Your task to perform on an android device: Go to battery settings Image 0: 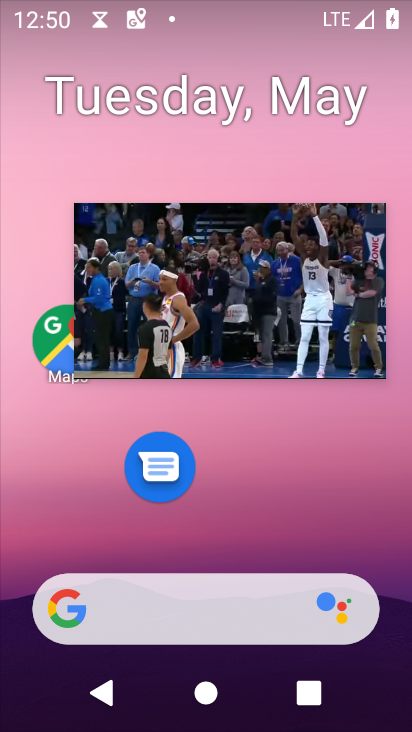
Step 0: drag from (245, 519) to (275, 55)
Your task to perform on an android device: Go to battery settings Image 1: 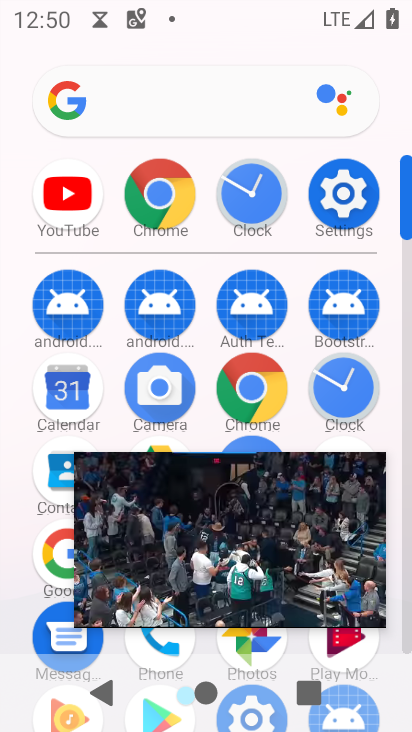
Step 1: click (340, 183)
Your task to perform on an android device: Go to battery settings Image 2: 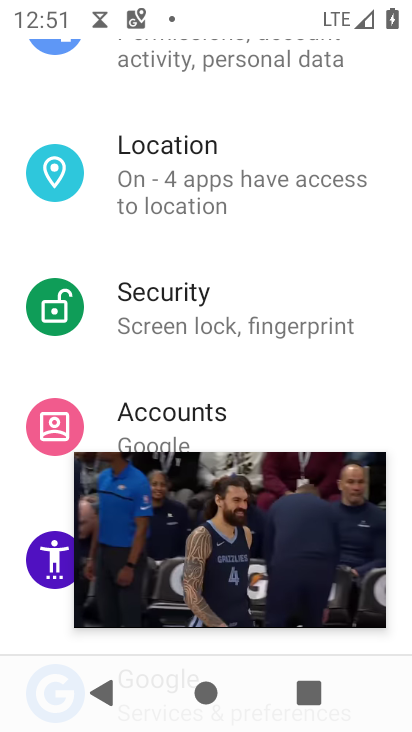
Step 2: drag from (329, 228) to (321, 366)
Your task to perform on an android device: Go to battery settings Image 3: 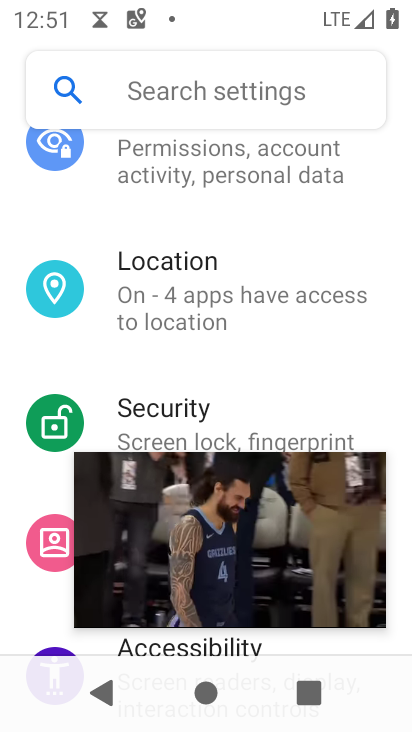
Step 3: drag from (289, 195) to (286, 398)
Your task to perform on an android device: Go to battery settings Image 4: 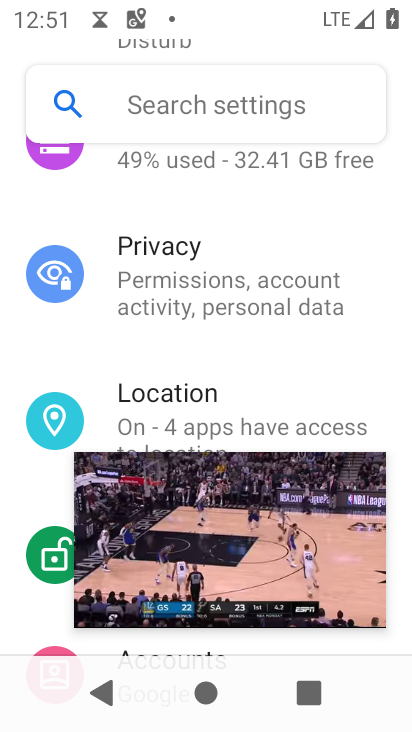
Step 4: drag from (261, 248) to (271, 398)
Your task to perform on an android device: Go to battery settings Image 5: 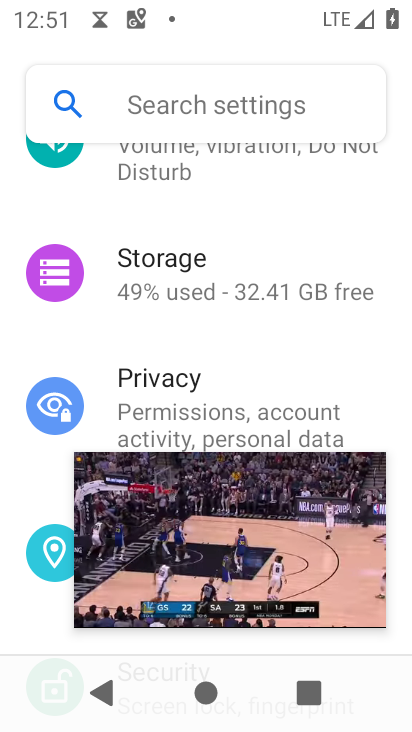
Step 5: drag from (300, 188) to (289, 427)
Your task to perform on an android device: Go to battery settings Image 6: 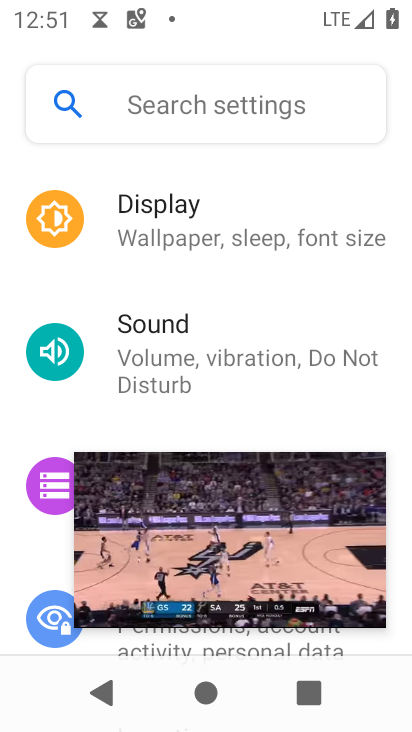
Step 6: drag from (282, 283) to (278, 501)
Your task to perform on an android device: Go to battery settings Image 7: 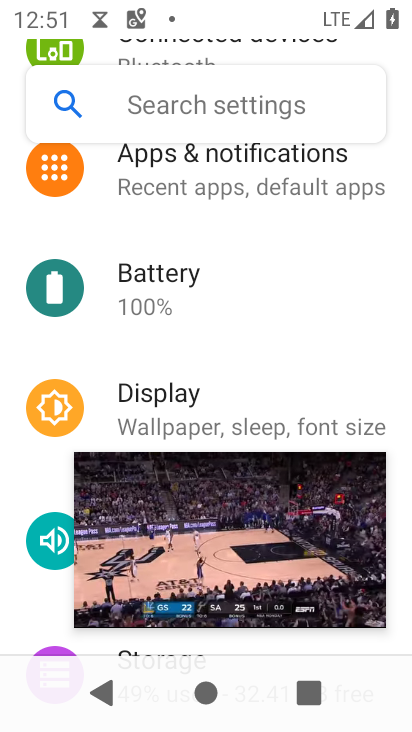
Step 7: drag from (298, 284) to (287, 492)
Your task to perform on an android device: Go to battery settings Image 8: 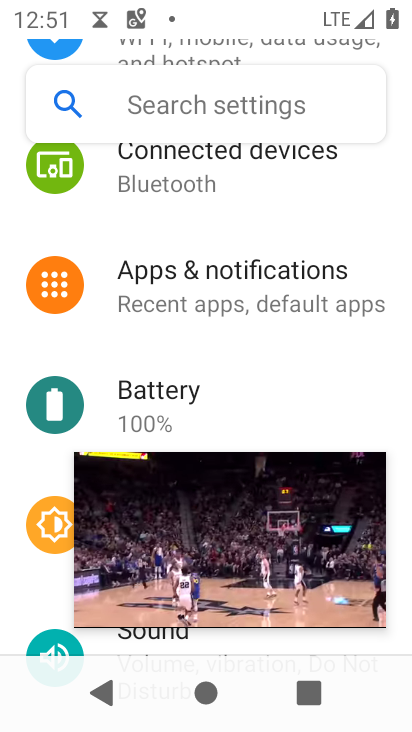
Step 8: click (192, 402)
Your task to perform on an android device: Go to battery settings Image 9: 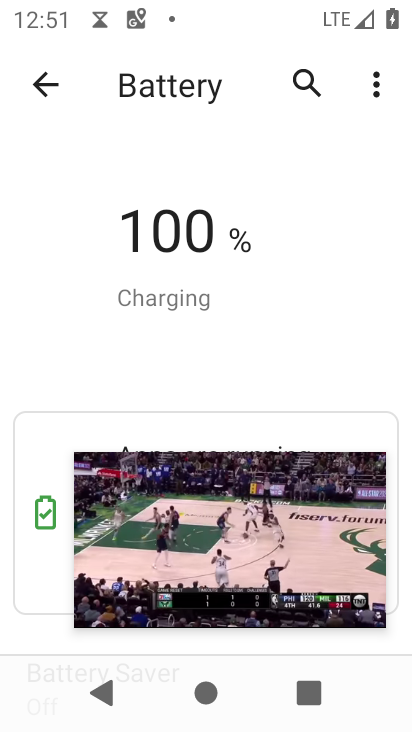
Step 9: task complete